Your task to perform on an android device: Is it going to rain this weekend? Image 0: 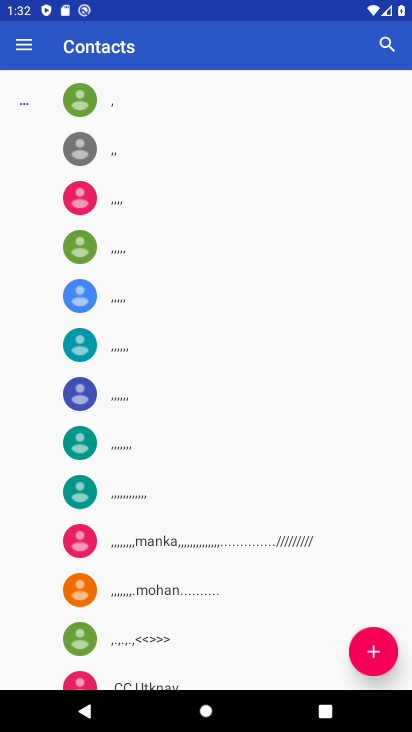
Step 0: press home button
Your task to perform on an android device: Is it going to rain this weekend? Image 1: 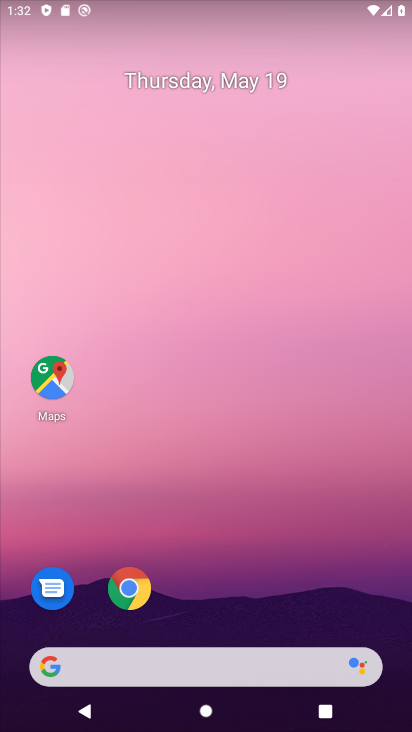
Step 1: click (138, 584)
Your task to perform on an android device: Is it going to rain this weekend? Image 2: 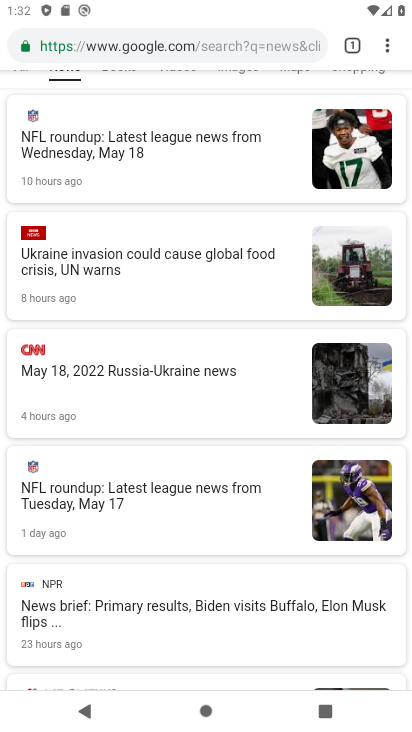
Step 2: drag from (274, 164) to (260, 532)
Your task to perform on an android device: Is it going to rain this weekend? Image 3: 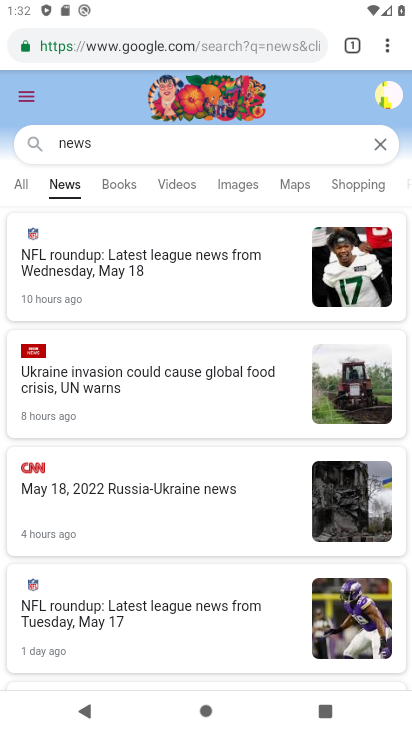
Step 3: press home button
Your task to perform on an android device: Is it going to rain this weekend? Image 4: 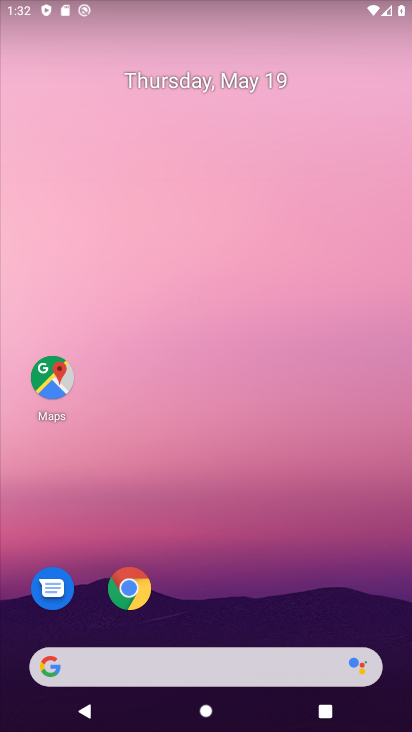
Step 4: click (139, 593)
Your task to perform on an android device: Is it going to rain this weekend? Image 5: 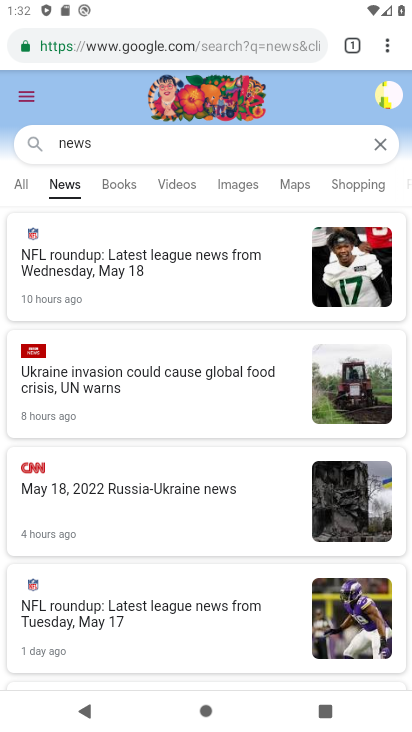
Step 5: click (230, 36)
Your task to perform on an android device: Is it going to rain this weekend? Image 6: 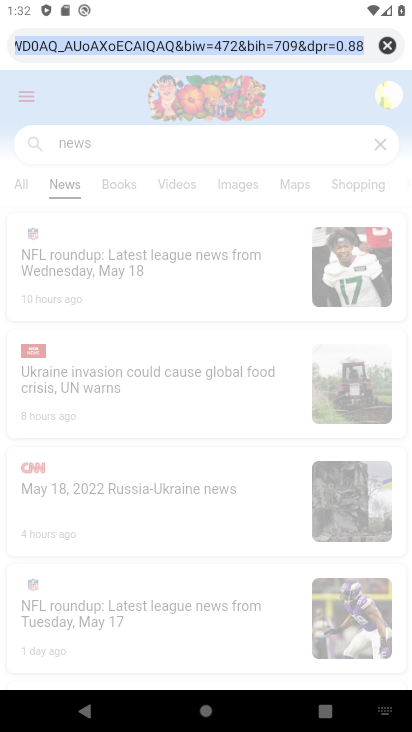
Step 6: type "weather"
Your task to perform on an android device: Is it going to rain this weekend? Image 7: 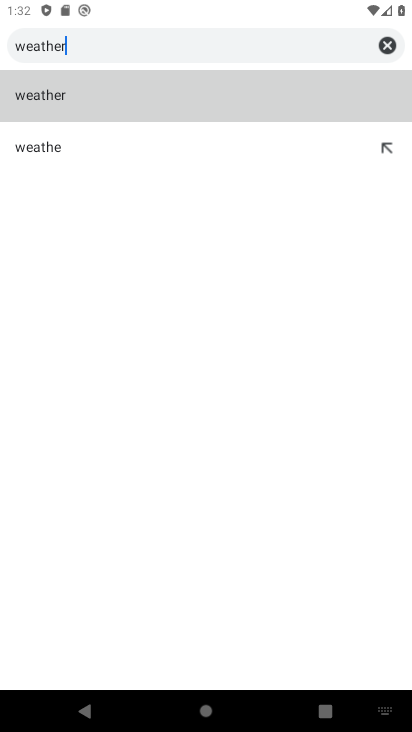
Step 7: type ""
Your task to perform on an android device: Is it going to rain this weekend? Image 8: 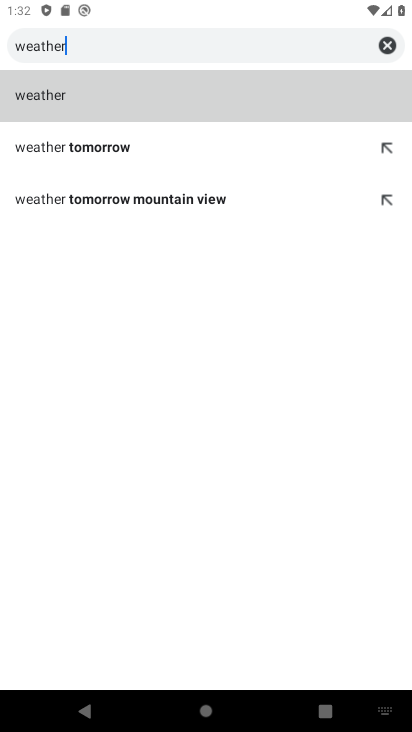
Step 8: click (45, 96)
Your task to perform on an android device: Is it going to rain this weekend? Image 9: 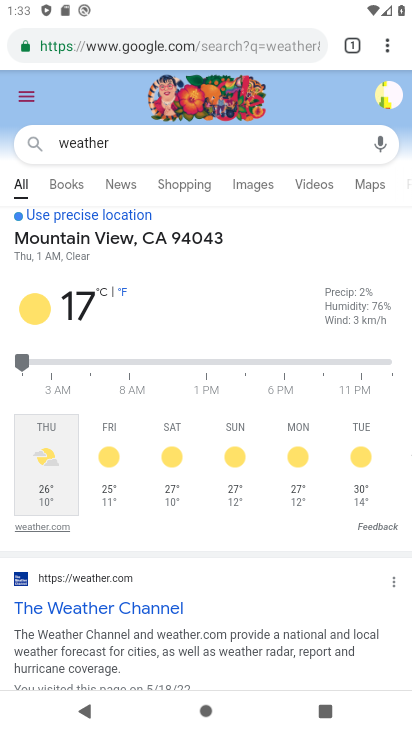
Step 9: click (177, 456)
Your task to perform on an android device: Is it going to rain this weekend? Image 10: 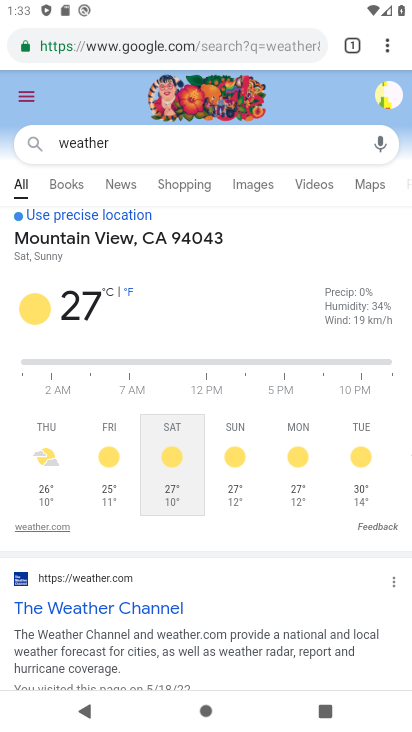
Step 10: task complete